Your task to perform on an android device: What's the weather today? Image 0: 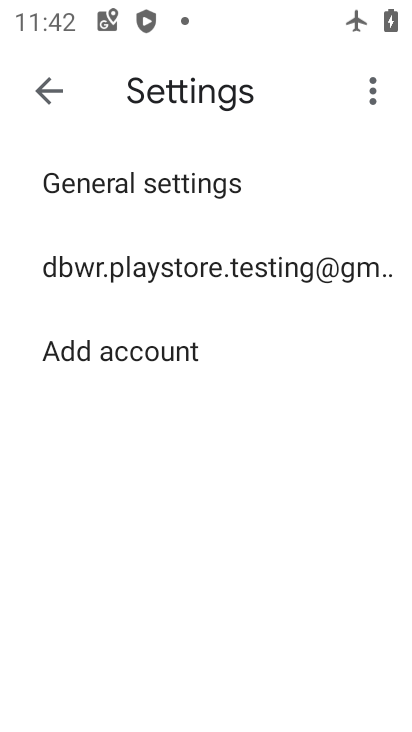
Step 0: press home button
Your task to perform on an android device: What's the weather today? Image 1: 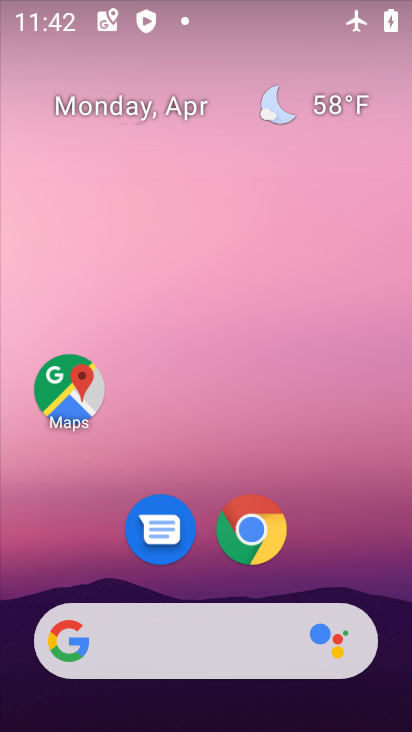
Step 1: click (310, 95)
Your task to perform on an android device: What's the weather today? Image 2: 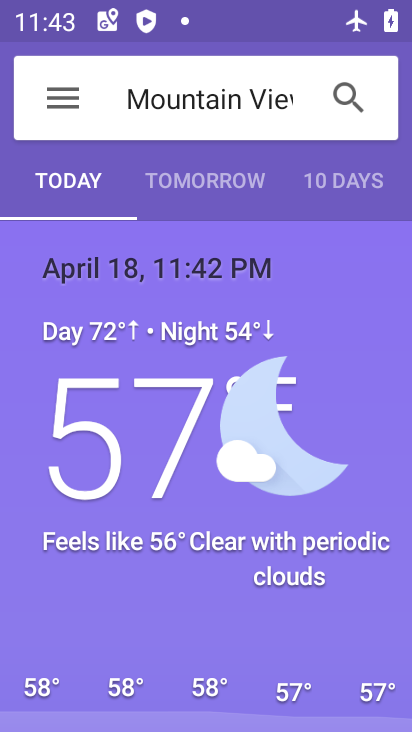
Step 2: task complete